Your task to perform on an android device: Set the phone to "Do not disturb". Image 0: 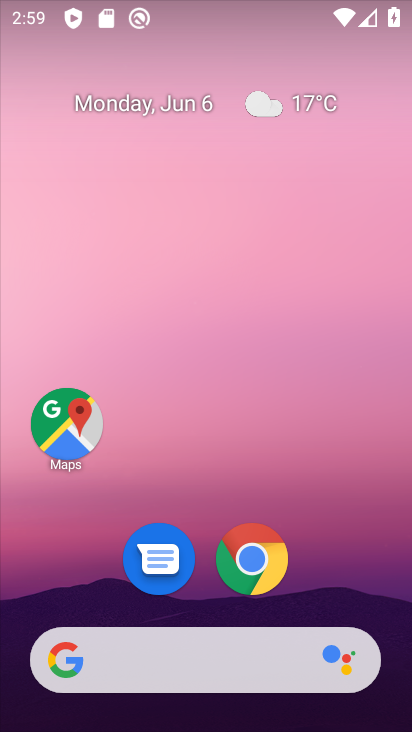
Step 0: drag from (364, 583) to (292, 186)
Your task to perform on an android device: Set the phone to "Do not disturb". Image 1: 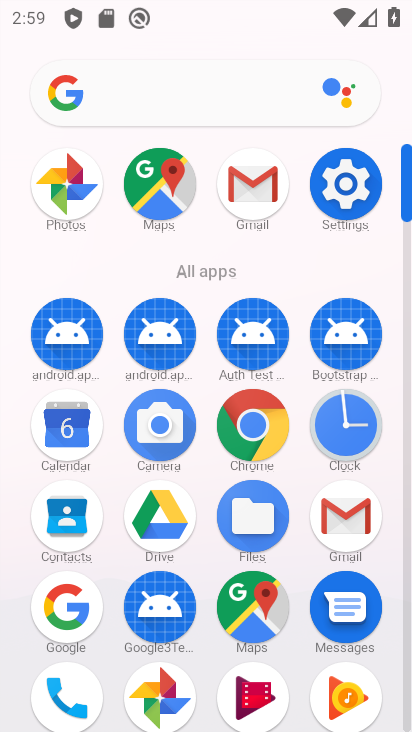
Step 1: click (360, 183)
Your task to perform on an android device: Set the phone to "Do not disturb". Image 2: 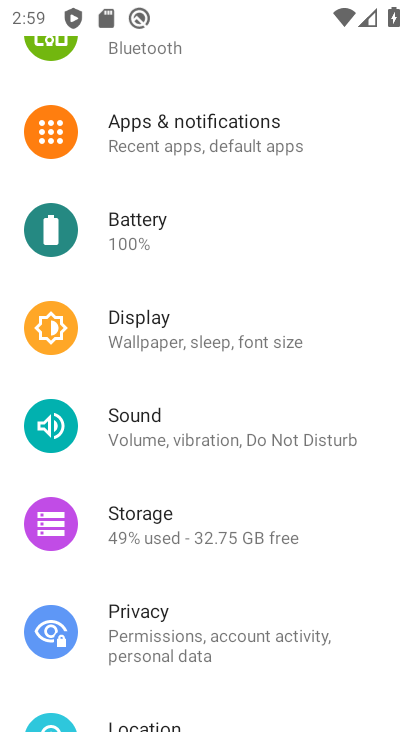
Step 2: click (248, 440)
Your task to perform on an android device: Set the phone to "Do not disturb". Image 3: 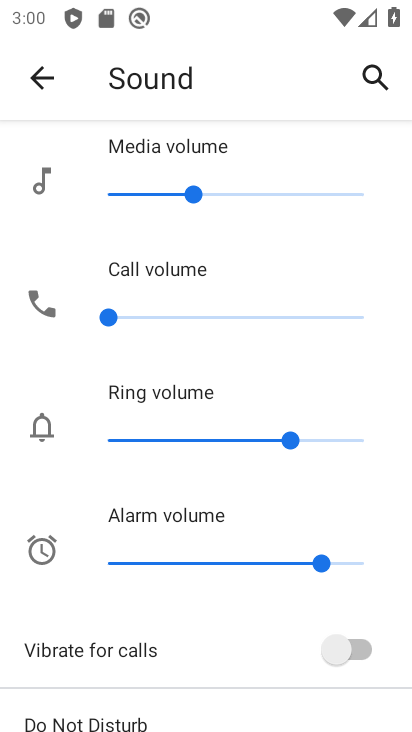
Step 3: drag from (252, 640) to (224, 390)
Your task to perform on an android device: Set the phone to "Do not disturb". Image 4: 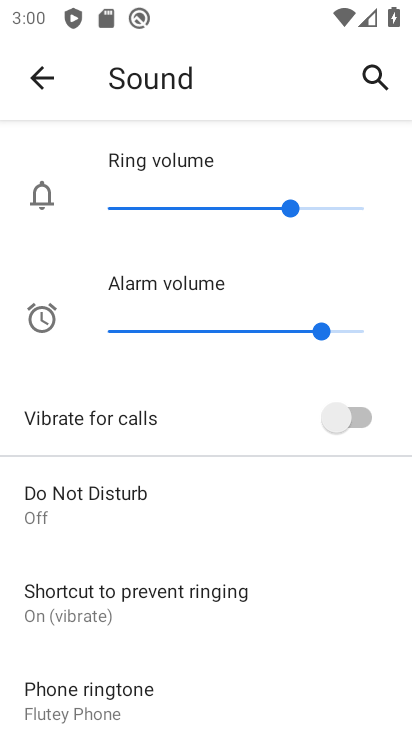
Step 4: click (221, 488)
Your task to perform on an android device: Set the phone to "Do not disturb". Image 5: 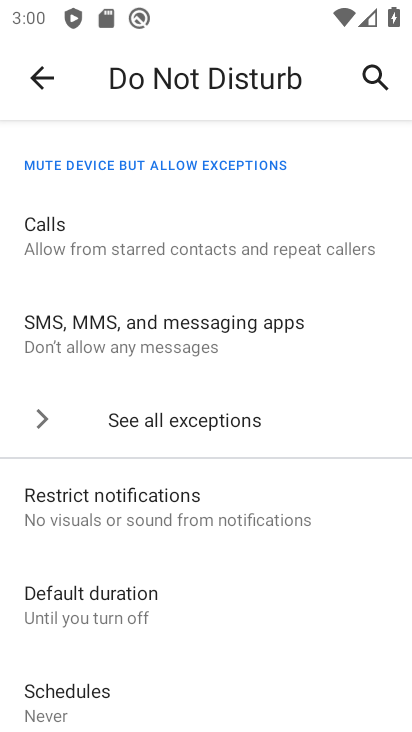
Step 5: drag from (261, 517) to (228, 241)
Your task to perform on an android device: Set the phone to "Do not disturb". Image 6: 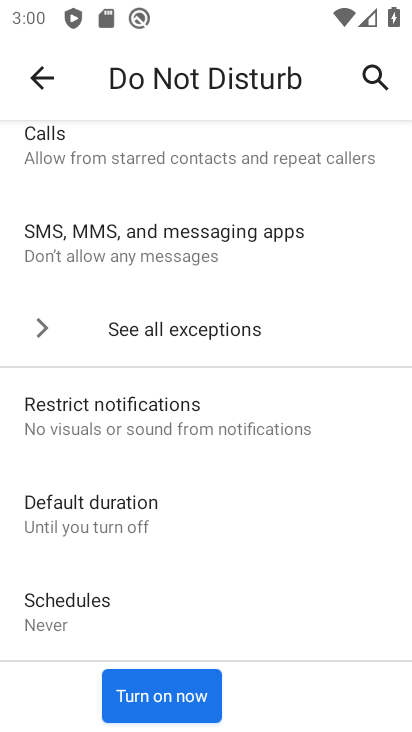
Step 6: click (176, 680)
Your task to perform on an android device: Set the phone to "Do not disturb". Image 7: 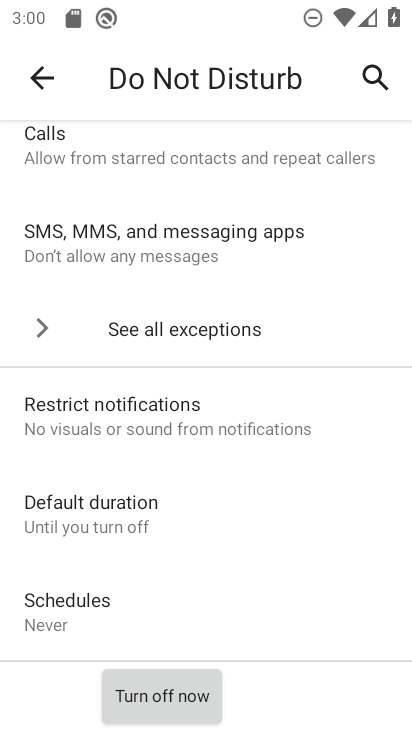
Step 7: task complete